Your task to perform on an android device: Set an alarm for 7am Image 0: 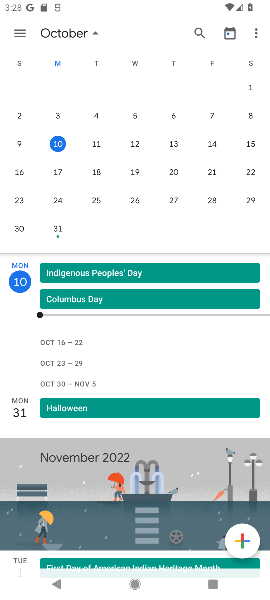
Step 0: press home button
Your task to perform on an android device: Set an alarm for 7am Image 1: 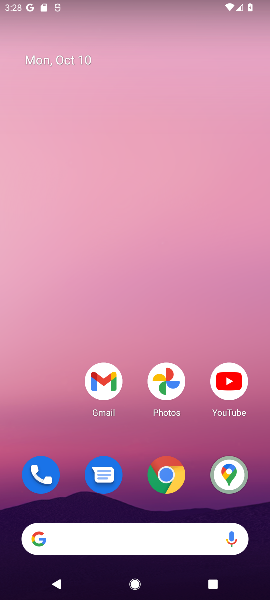
Step 1: drag from (149, 518) to (142, 234)
Your task to perform on an android device: Set an alarm for 7am Image 2: 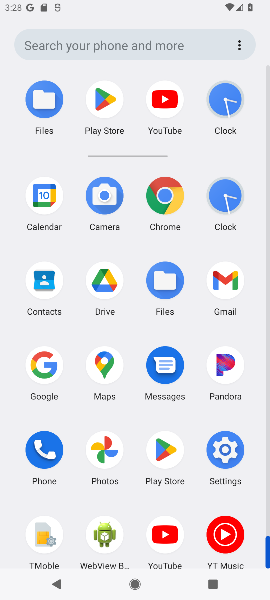
Step 2: click (232, 199)
Your task to perform on an android device: Set an alarm for 7am Image 3: 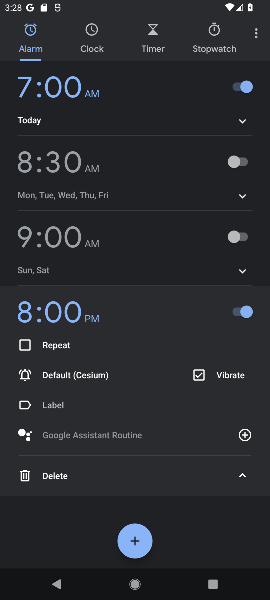
Step 3: click (139, 543)
Your task to perform on an android device: Set an alarm for 7am Image 4: 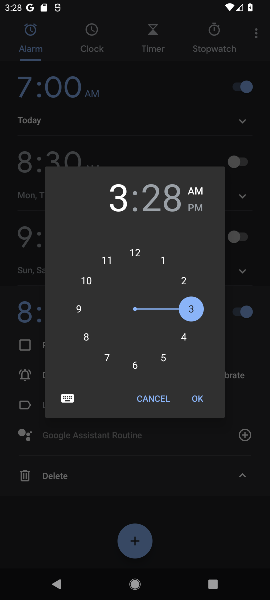
Step 4: click (112, 360)
Your task to perform on an android device: Set an alarm for 7am Image 5: 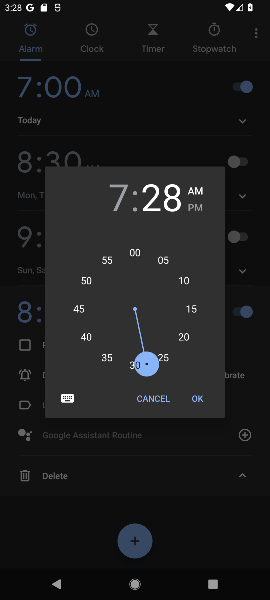
Step 5: click (133, 252)
Your task to perform on an android device: Set an alarm for 7am Image 6: 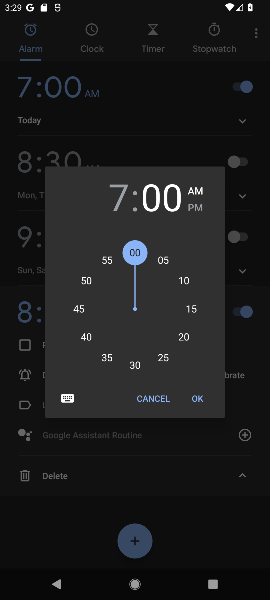
Step 6: click (200, 403)
Your task to perform on an android device: Set an alarm for 7am Image 7: 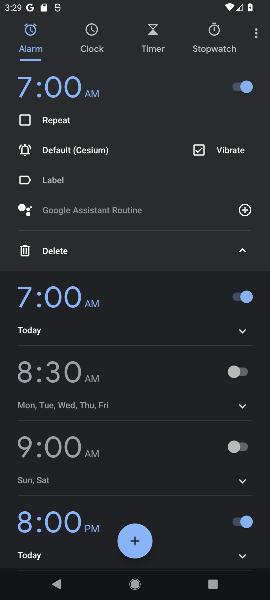
Step 7: task complete